Your task to perform on an android device: open chrome and create a bookmark for the current page Image 0: 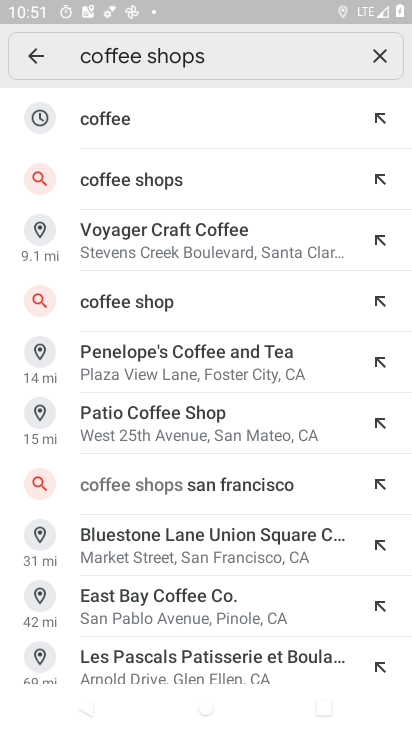
Step 0: press home button
Your task to perform on an android device: open chrome and create a bookmark for the current page Image 1: 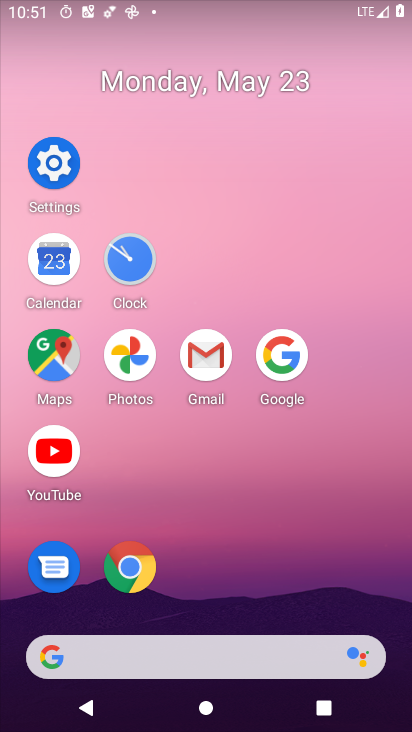
Step 1: click (140, 562)
Your task to perform on an android device: open chrome and create a bookmark for the current page Image 2: 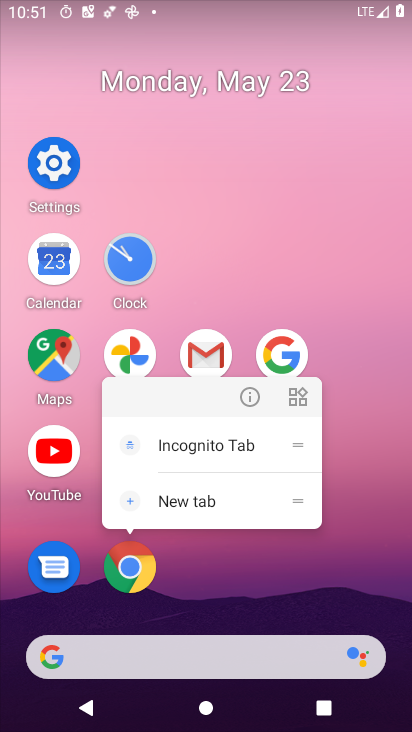
Step 2: click (145, 567)
Your task to perform on an android device: open chrome and create a bookmark for the current page Image 3: 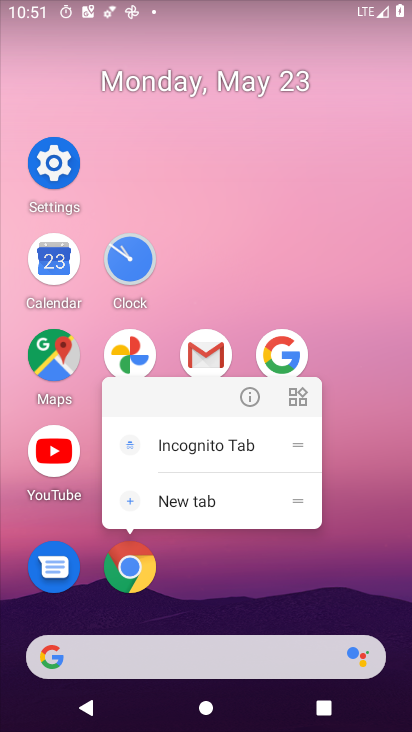
Step 3: click (147, 550)
Your task to perform on an android device: open chrome and create a bookmark for the current page Image 4: 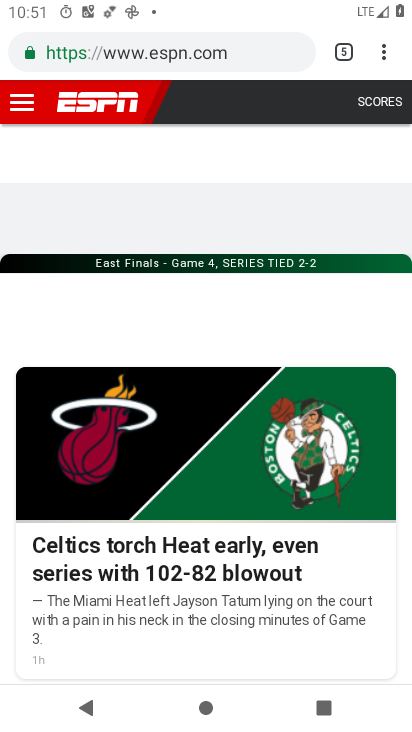
Step 4: click (375, 59)
Your task to perform on an android device: open chrome and create a bookmark for the current page Image 5: 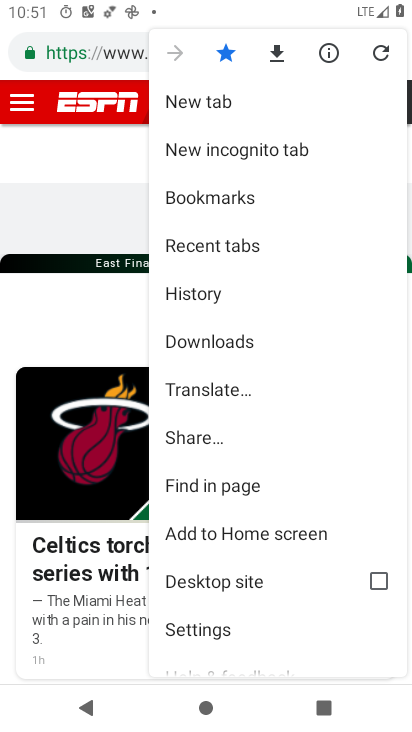
Step 5: task complete